Your task to perform on an android device: delete the emails in spam in the gmail app Image 0: 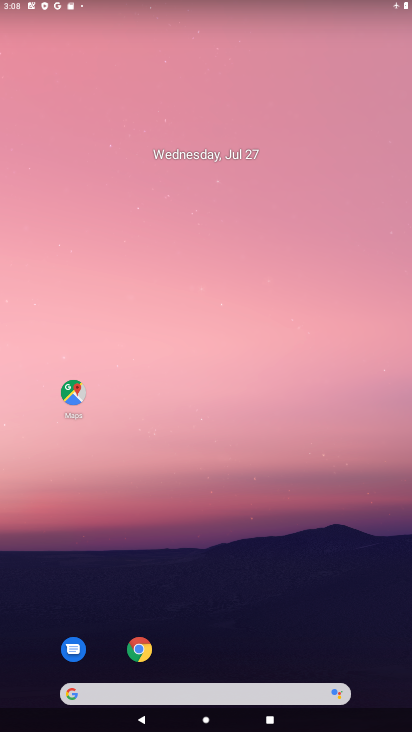
Step 0: drag from (208, 565) to (202, 71)
Your task to perform on an android device: delete the emails in spam in the gmail app Image 1: 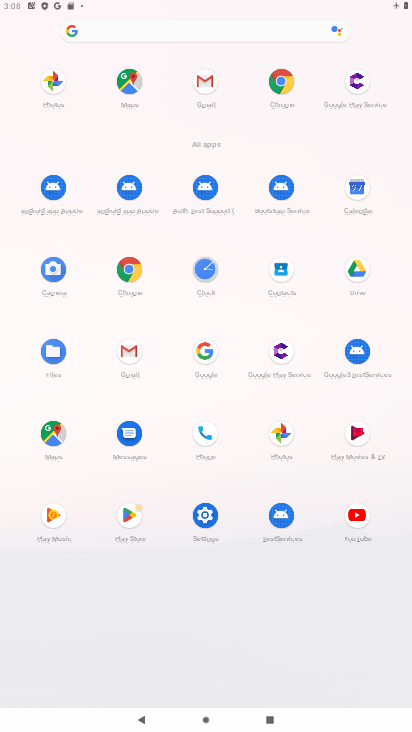
Step 1: click (123, 357)
Your task to perform on an android device: delete the emails in spam in the gmail app Image 2: 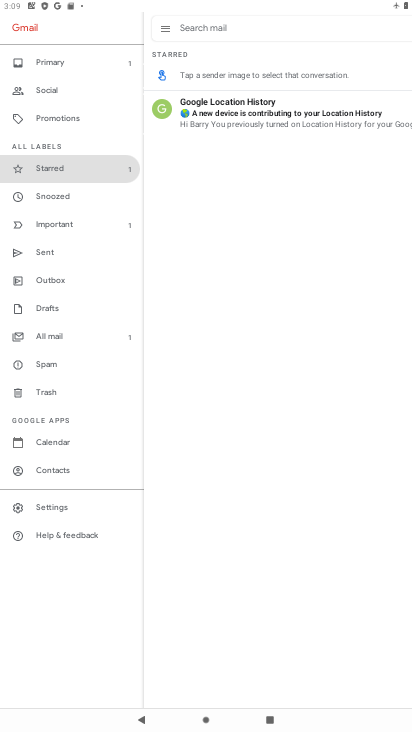
Step 2: click (33, 367)
Your task to perform on an android device: delete the emails in spam in the gmail app Image 3: 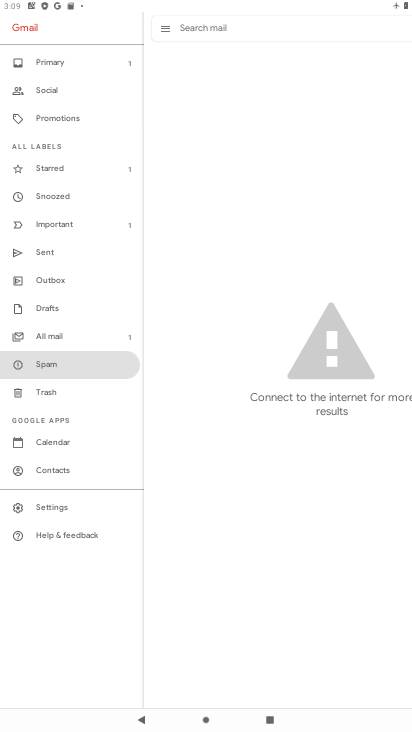
Step 3: task complete